Your task to perform on an android device: open a bookmark in the chrome app Image 0: 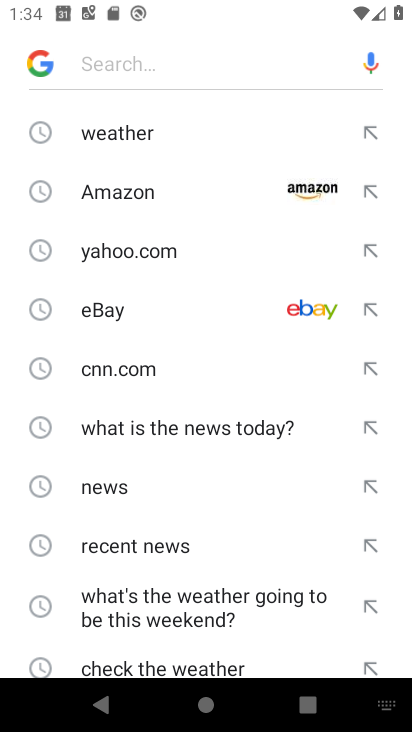
Step 0: press home button
Your task to perform on an android device: open a bookmark in the chrome app Image 1: 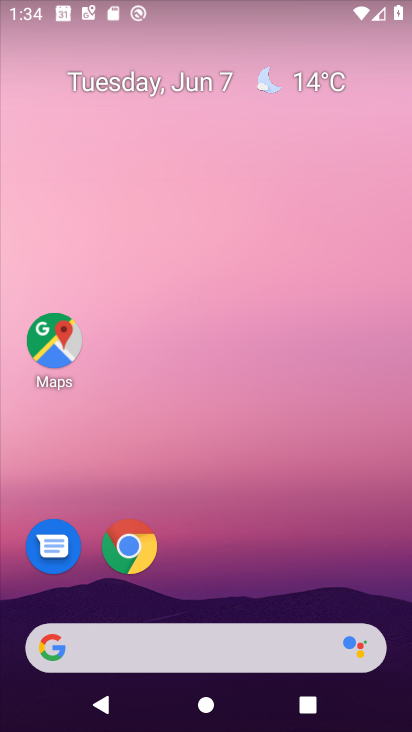
Step 1: click (140, 540)
Your task to perform on an android device: open a bookmark in the chrome app Image 2: 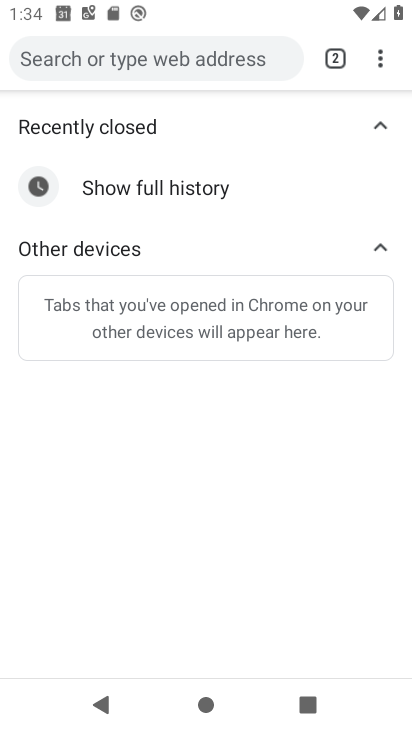
Step 2: click (376, 59)
Your task to perform on an android device: open a bookmark in the chrome app Image 3: 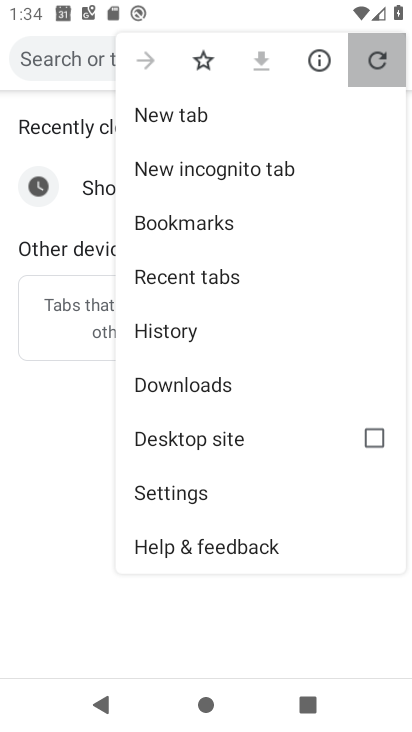
Step 3: task complete